Your task to perform on an android device: delete the emails in spam in the gmail app Image 0: 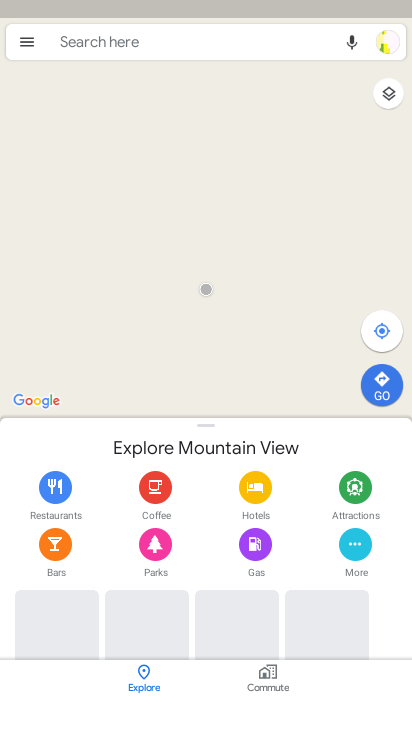
Step 0: press home button
Your task to perform on an android device: delete the emails in spam in the gmail app Image 1: 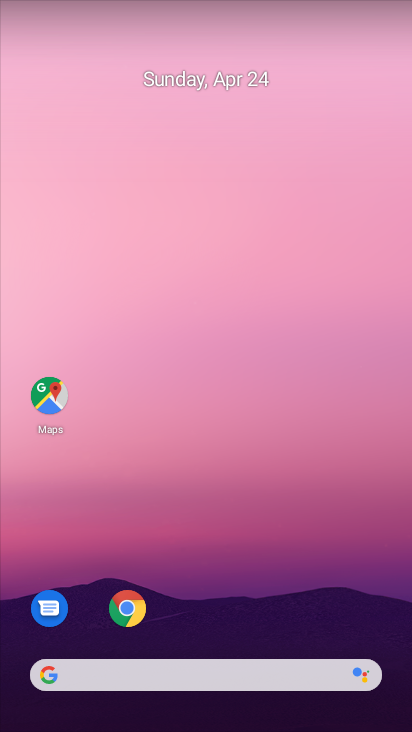
Step 1: drag from (260, 315) to (273, 114)
Your task to perform on an android device: delete the emails in spam in the gmail app Image 2: 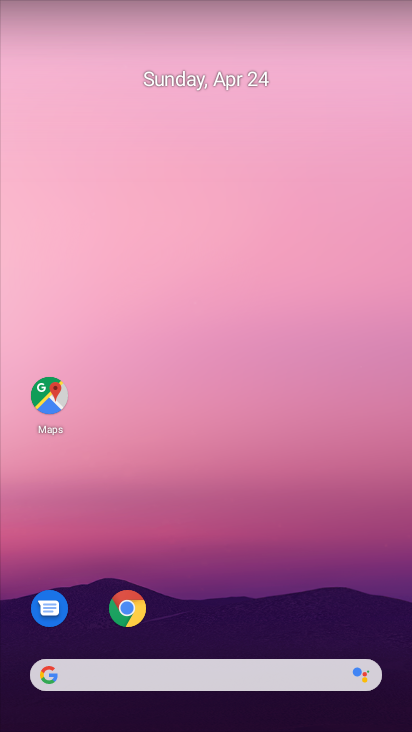
Step 2: drag from (274, 607) to (299, 0)
Your task to perform on an android device: delete the emails in spam in the gmail app Image 3: 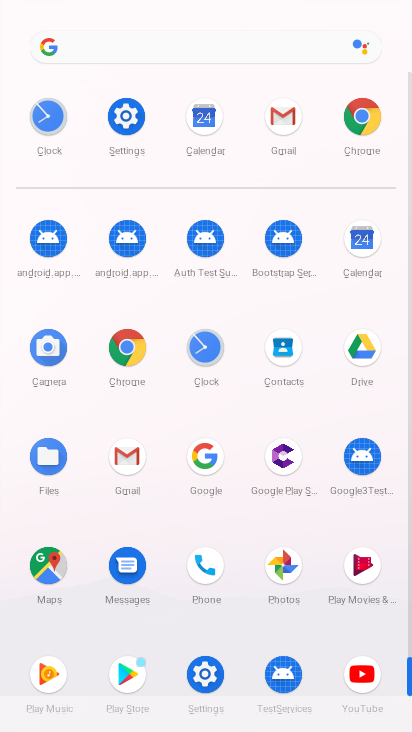
Step 3: click (291, 106)
Your task to perform on an android device: delete the emails in spam in the gmail app Image 4: 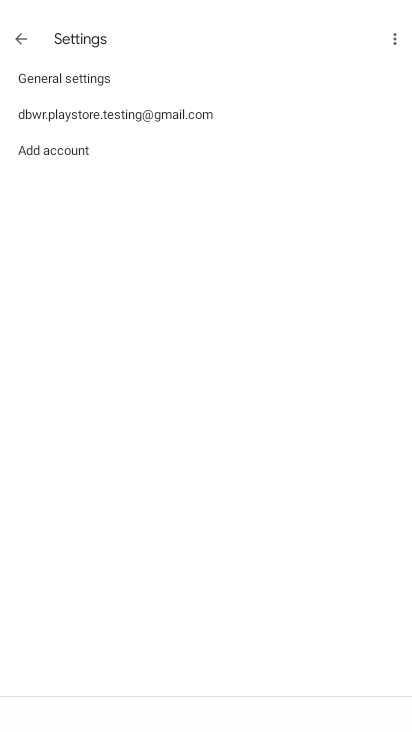
Step 4: click (22, 33)
Your task to perform on an android device: delete the emails in spam in the gmail app Image 5: 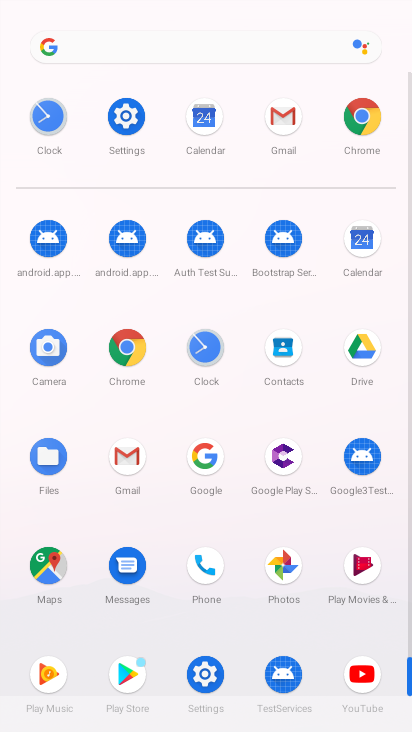
Step 5: click (277, 105)
Your task to perform on an android device: delete the emails in spam in the gmail app Image 6: 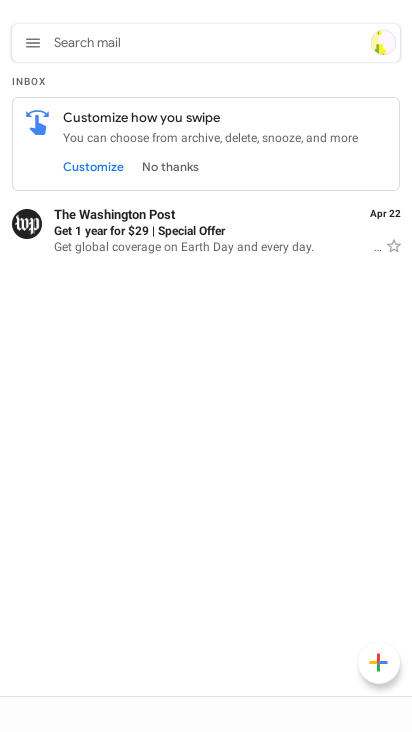
Step 6: click (35, 33)
Your task to perform on an android device: delete the emails in spam in the gmail app Image 7: 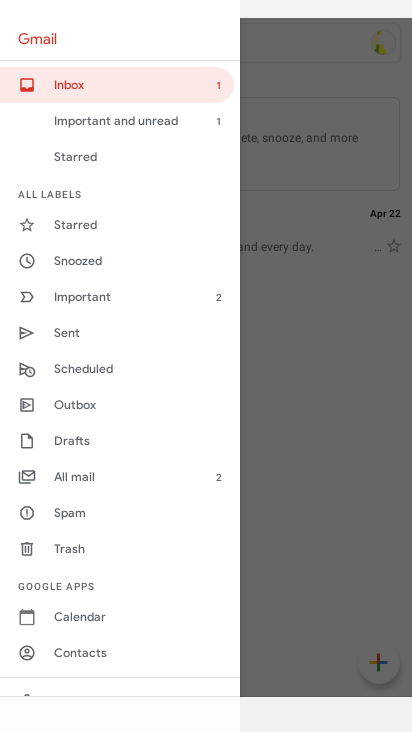
Step 7: click (129, 507)
Your task to perform on an android device: delete the emails in spam in the gmail app Image 8: 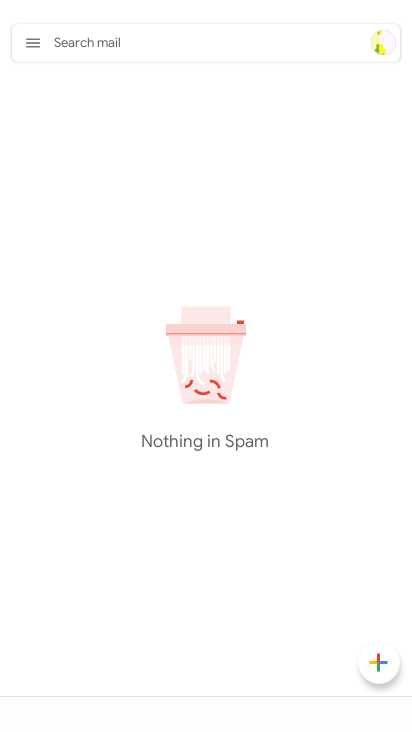
Step 8: task complete